Your task to perform on an android device: Go to battery settings Image 0: 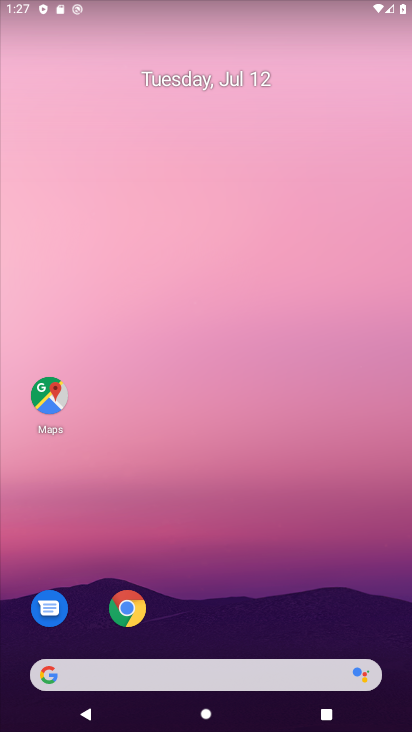
Step 0: drag from (210, 650) to (330, 69)
Your task to perform on an android device: Go to battery settings Image 1: 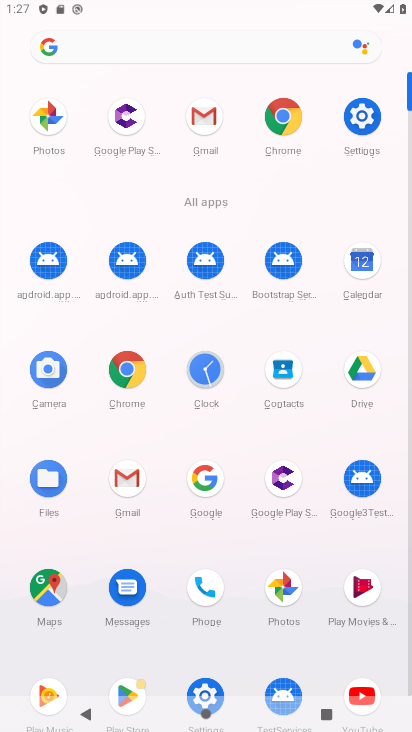
Step 1: click (199, 680)
Your task to perform on an android device: Go to battery settings Image 2: 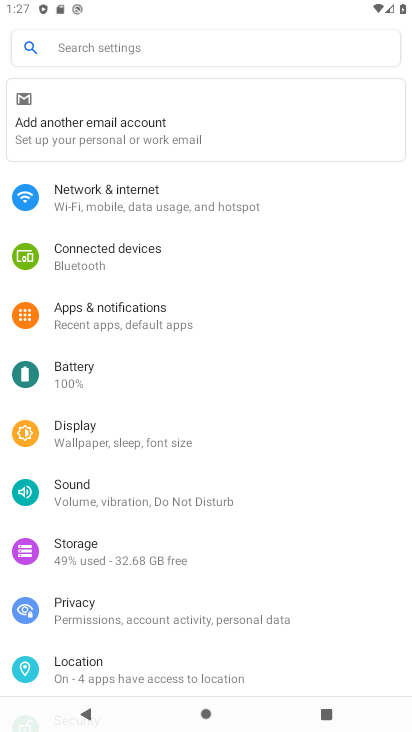
Step 2: click (73, 368)
Your task to perform on an android device: Go to battery settings Image 3: 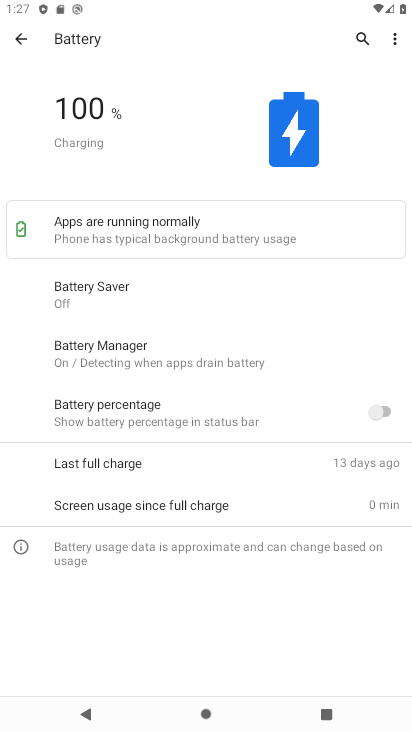
Step 3: task complete